Your task to perform on an android device: turn on location history Image 0: 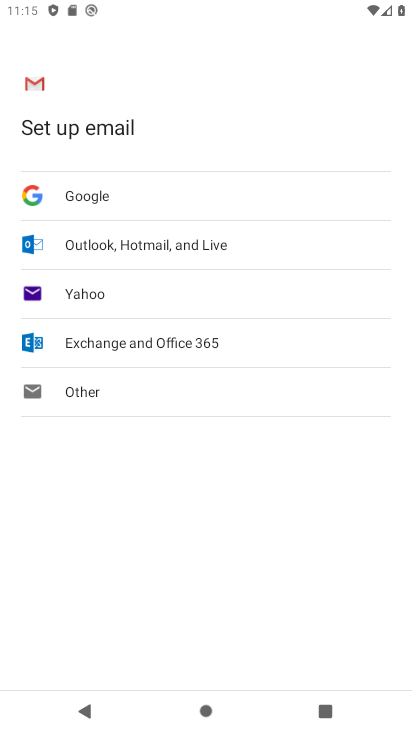
Step 0: press home button
Your task to perform on an android device: turn on location history Image 1: 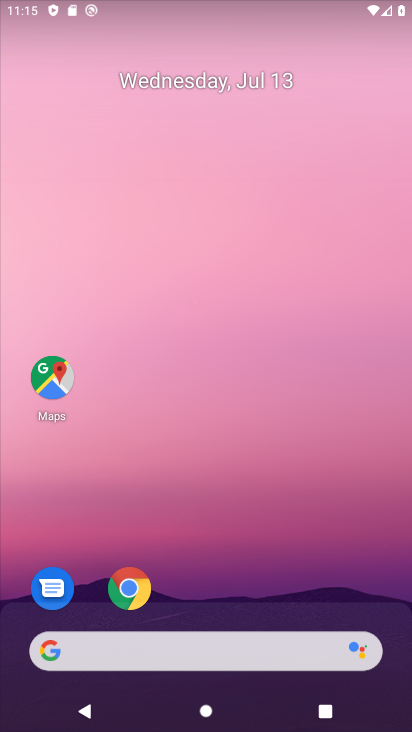
Step 1: drag from (176, 653) to (203, 268)
Your task to perform on an android device: turn on location history Image 2: 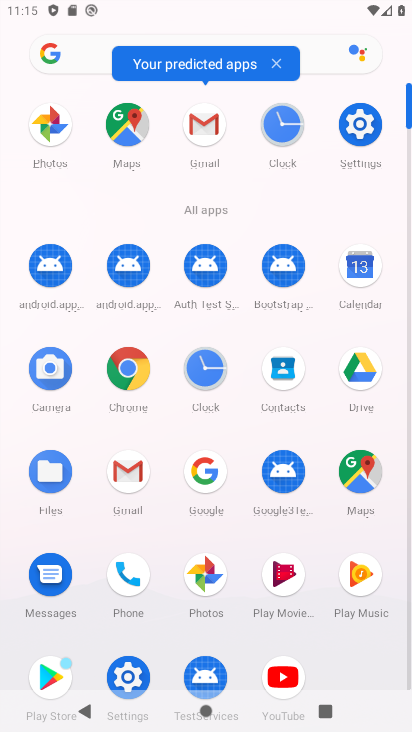
Step 2: click (355, 128)
Your task to perform on an android device: turn on location history Image 3: 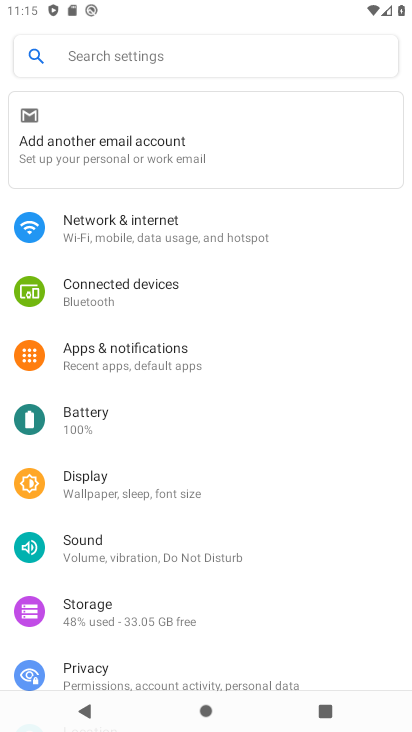
Step 3: drag from (121, 667) to (143, 267)
Your task to perform on an android device: turn on location history Image 4: 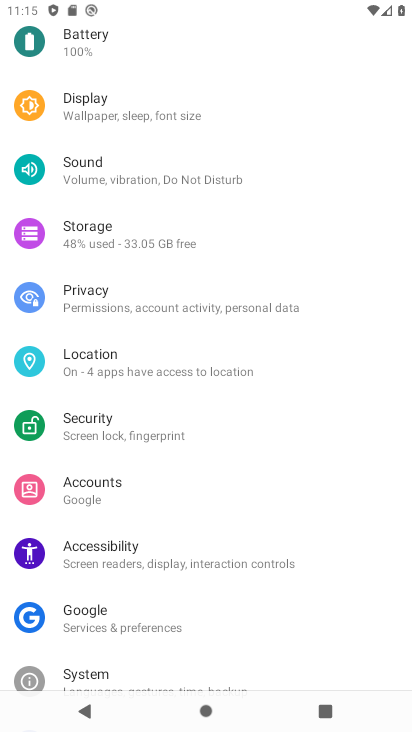
Step 4: click (95, 352)
Your task to perform on an android device: turn on location history Image 5: 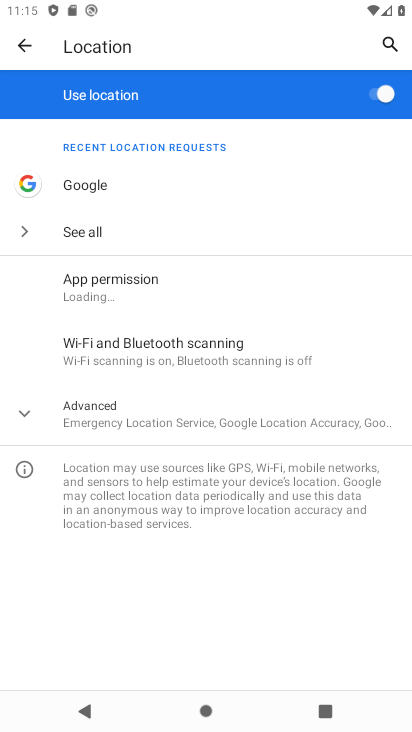
Step 5: click (108, 416)
Your task to perform on an android device: turn on location history Image 6: 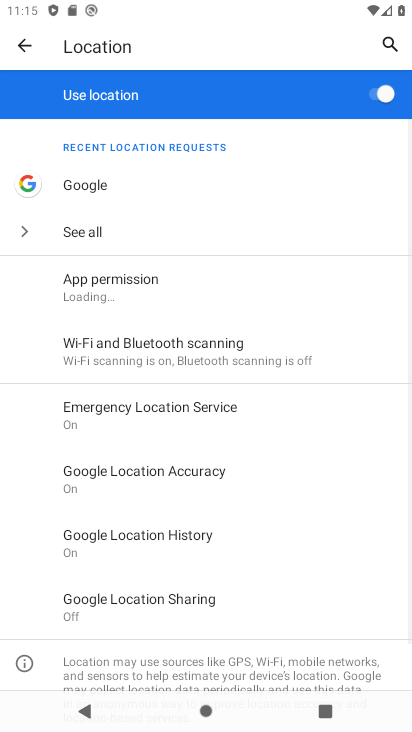
Step 6: click (167, 519)
Your task to perform on an android device: turn on location history Image 7: 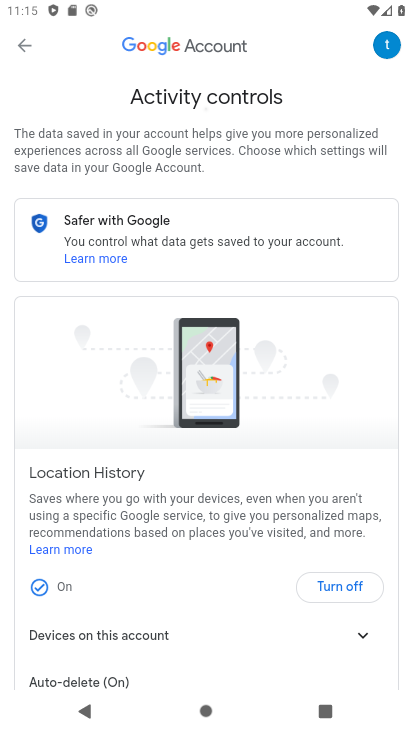
Step 7: click (320, 574)
Your task to perform on an android device: turn on location history Image 8: 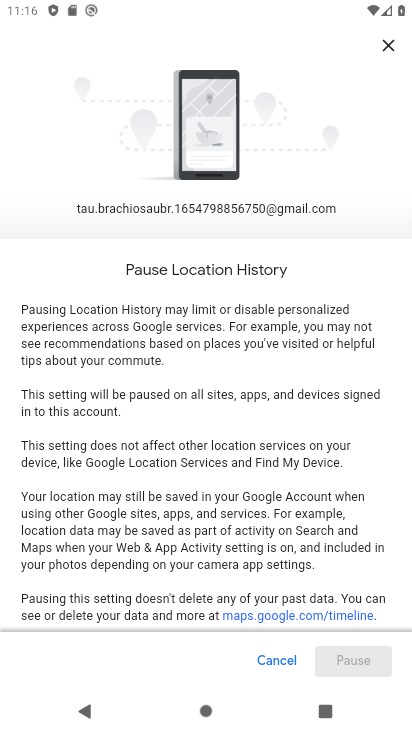
Step 8: click (255, 661)
Your task to perform on an android device: turn on location history Image 9: 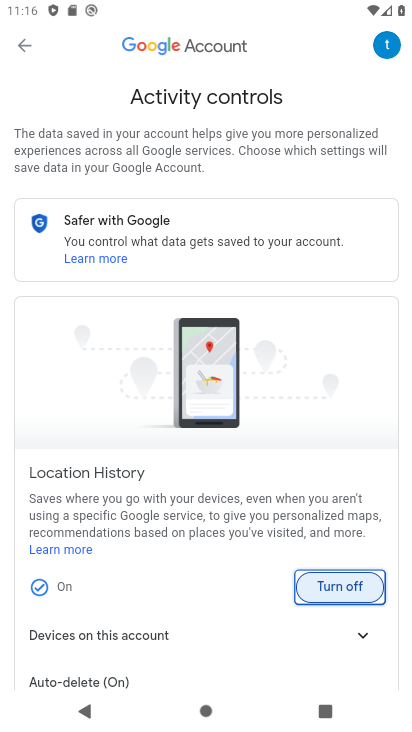
Step 9: task complete